Your task to perform on an android device: set an alarm Image 0: 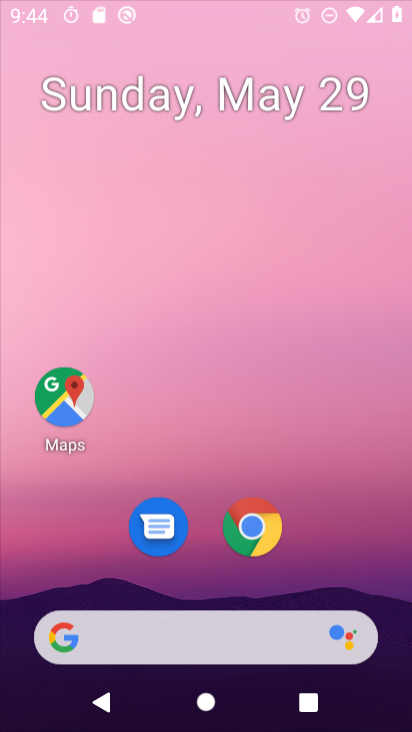
Step 0: drag from (391, 626) to (331, 65)
Your task to perform on an android device: set an alarm Image 1: 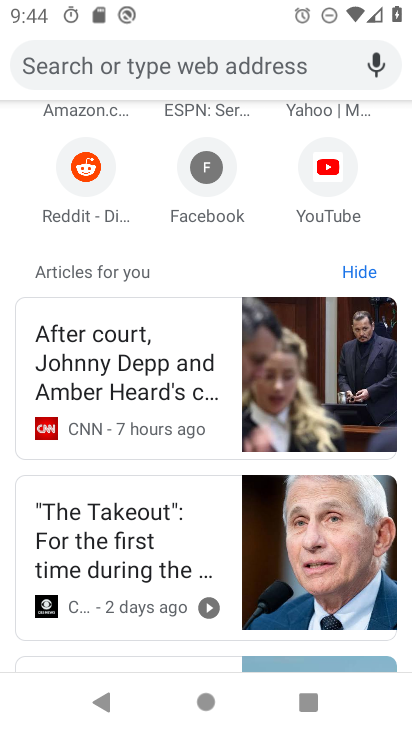
Step 1: press home button
Your task to perform on an android device: set an alarm Image 2: 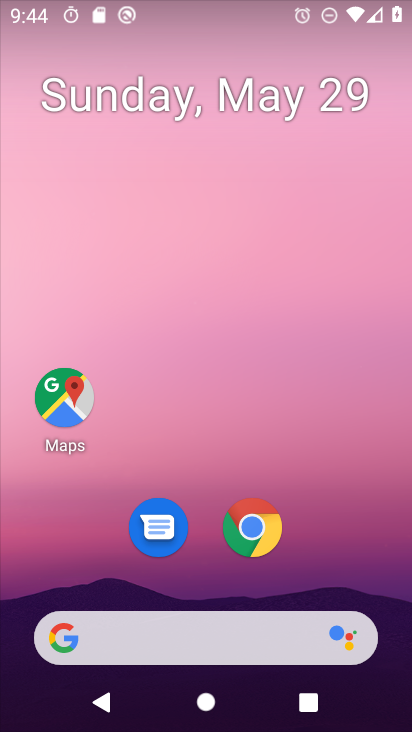
Step 2: click (389, 484)
Your task to perform on an android device: set an alarm Image 3: 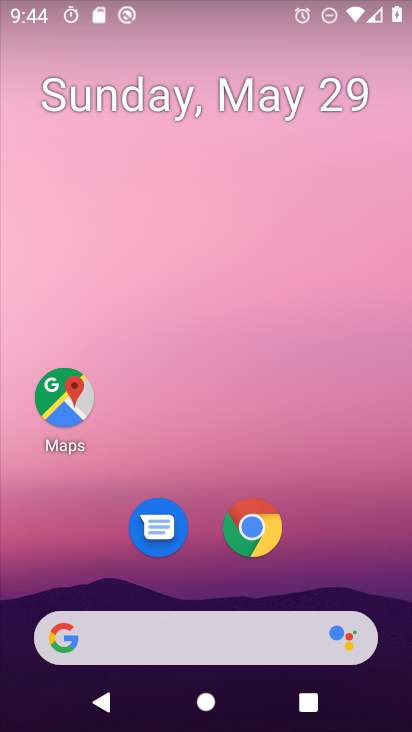
Step 3: drag from (374, 639) to (287, 67)
Your task to perform on an android device: set an alarm Image 4: 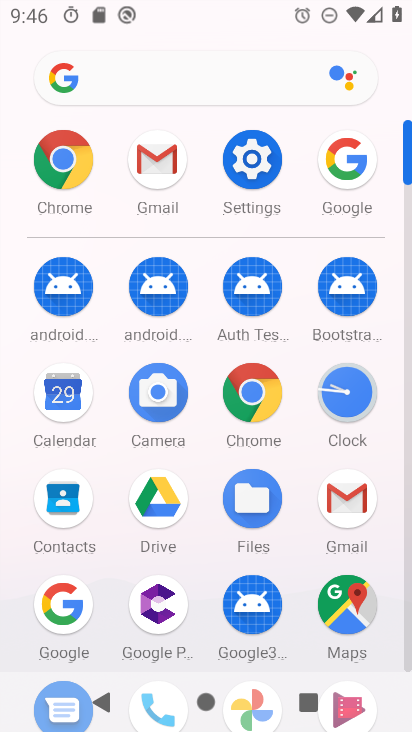
Step 4: click (334, 378)
Your task to perform on an android device: set an alarm Image 5: 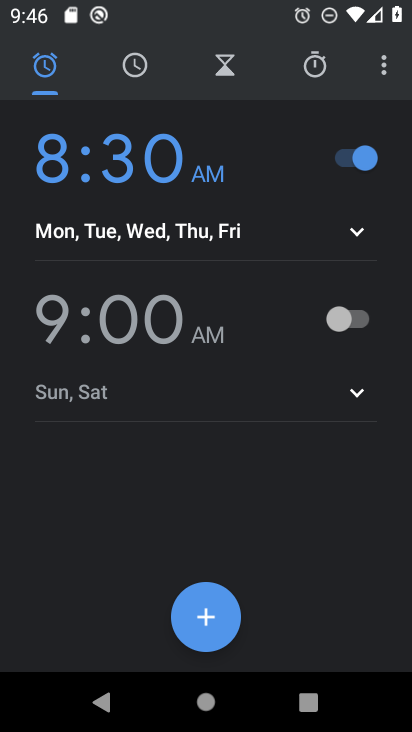
Step 5: click (367, 319)
Your task to perform on an android device: set an alarm Image 6: 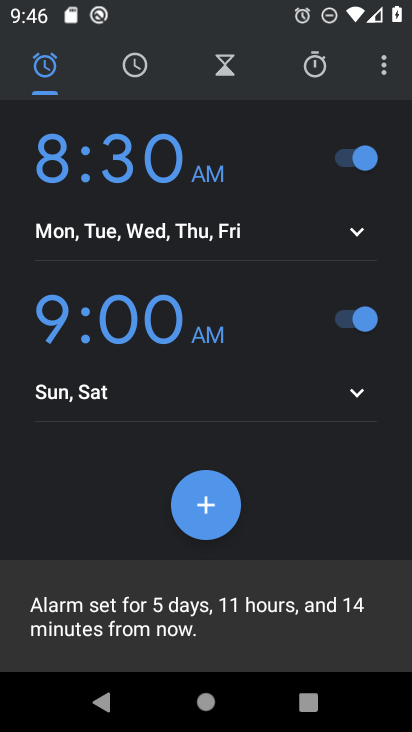
Step 6: task complete